Your task to perform on an android device: Do I have any events this weekend? Image 0: 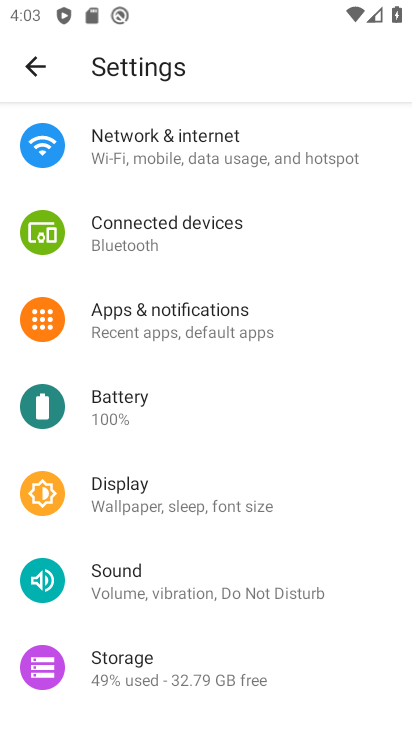
Step 0: press home button
Your task to perform on an android device: Do I have any events this weekend? Image 1: 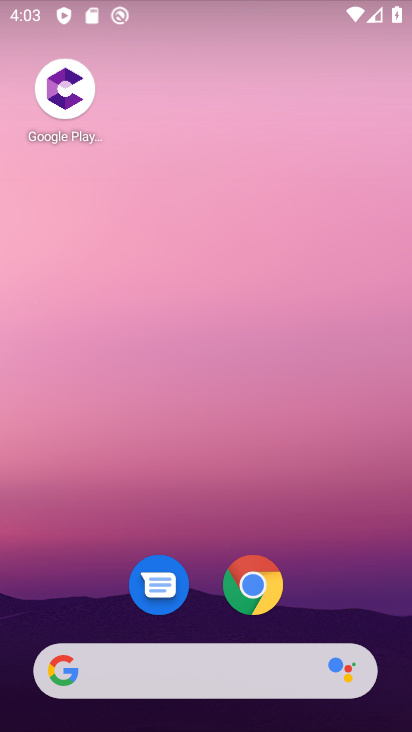
Step 1: drag from (225, 489) to (266, 49)
Your task to perform on an android device: Do I have any events this weekend? Image 2: 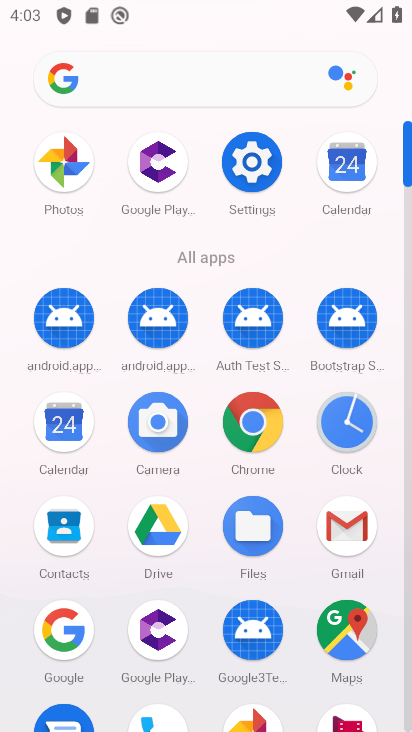
Step 2: click (53, 414)
Your task to perform on an android device: Do I have any events this weekend? Image 3: 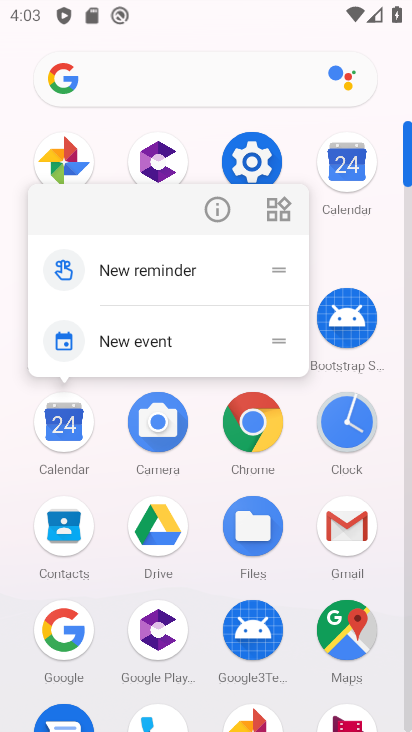
Step 3: click (70, 425)
Your task to perform on an android device: Do I have any events this weekend? Image 4: 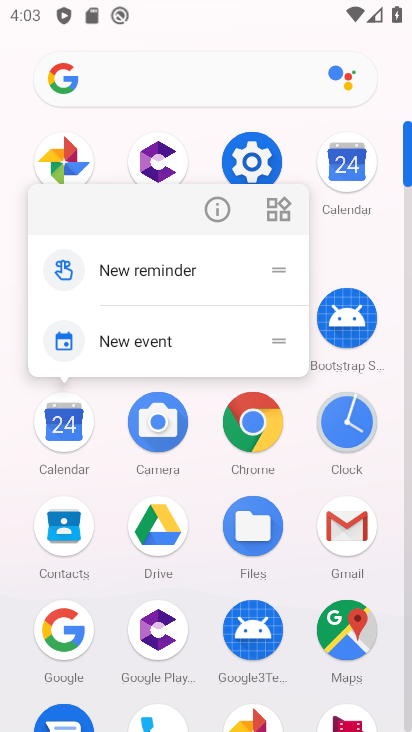
Step 4: click (70, 425)
Your task to perform on an android device: Do I have any events this weekend? Image 5: 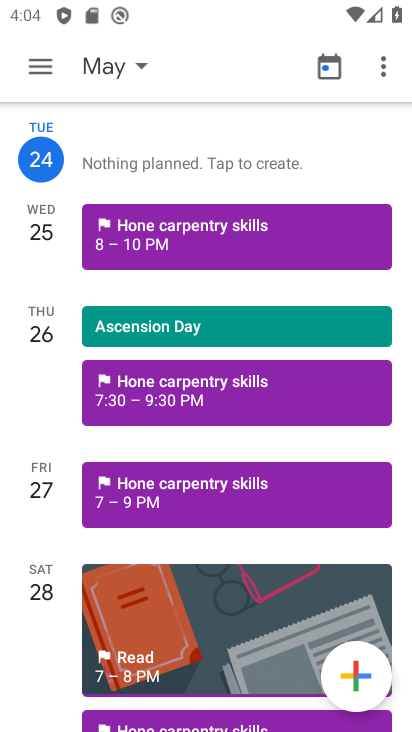
Step 5: task complete